Your task to perform on an android device: check the backup settings in the google photos Image 0: 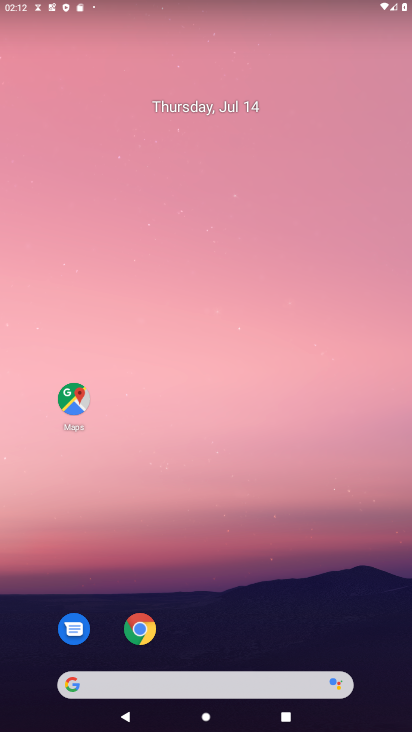
Step 0: drag from (234, 553) to (226, 33)
Your task to perform on an android device: check the backup settings in the google photos Image 1: 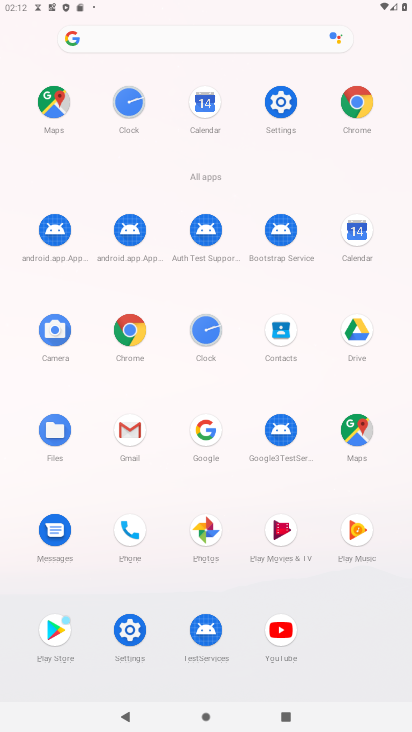
Step 1: click (213, 536)
Your task to perform on an android device: check the backup settings in the google photos Image 2: 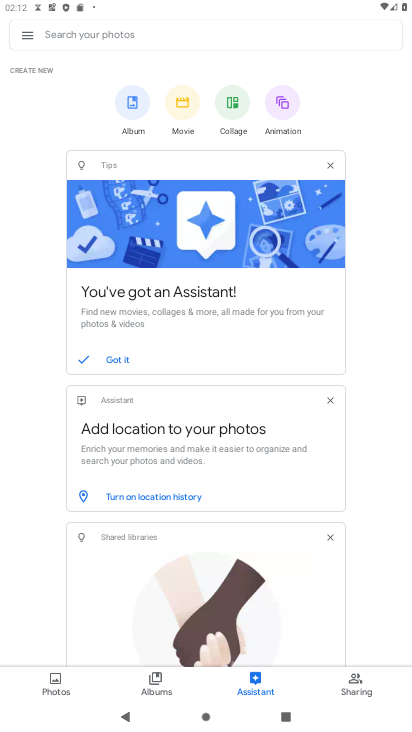
Step 2: click (57, 665)
Your task to perform on an android device: check the backup settings in the google photos Image 3: 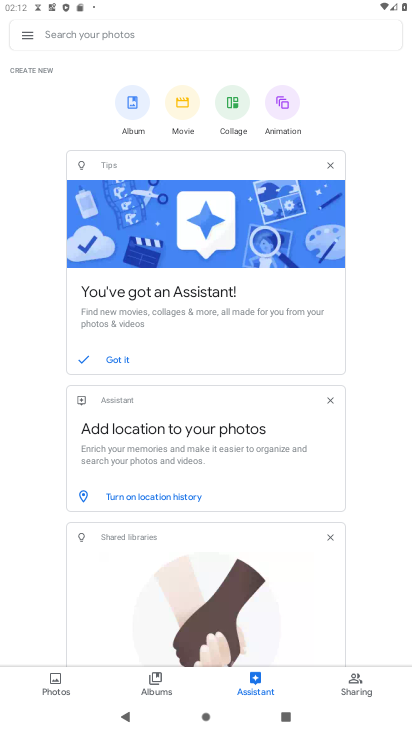
Step 3: click (54, 684)
Your task to perform on an android device: check the backup settings in the google photos Image 4: 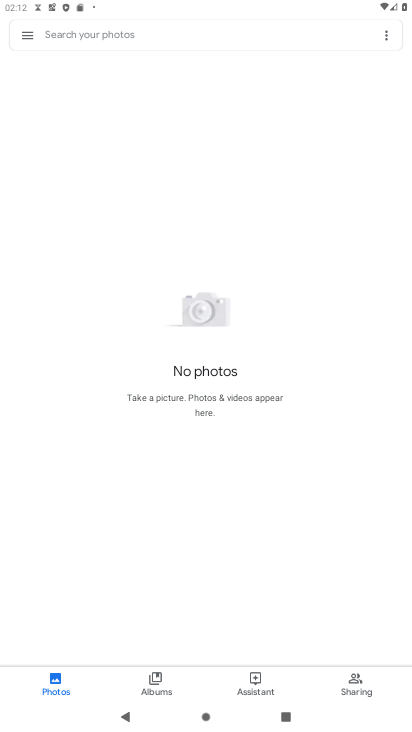
Step 4: click (32, 29)
Your task to perform on an android device: check the backup settings in the google photos Image 5: 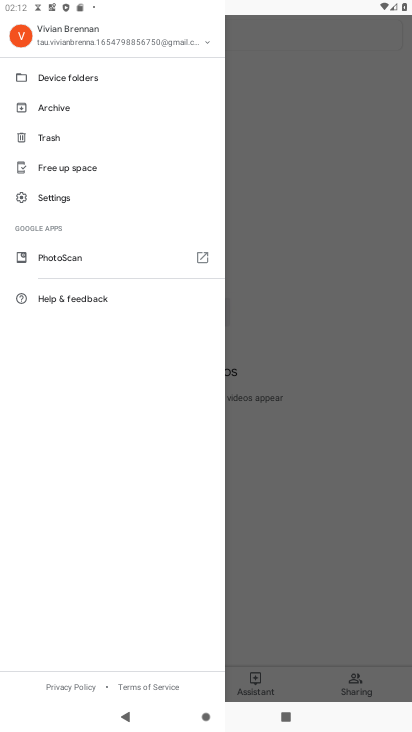
Step 5: click (56, 197)
Your task to perform on an android device: check the backup settings in the google photos Image 6: 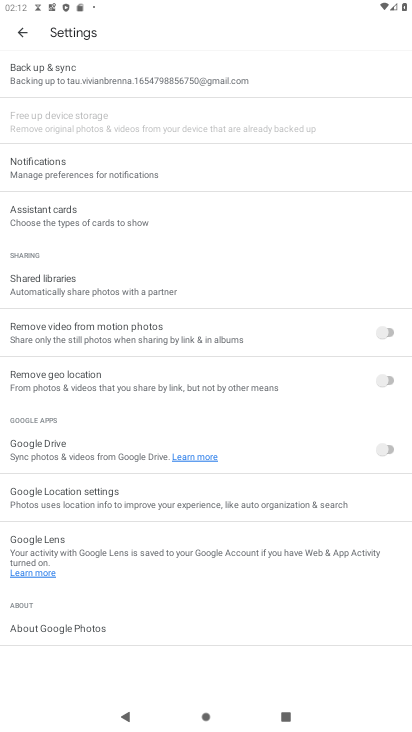
Step 6: click (102, 64)
Your task to perform on an android device: check the backup settings in the google photos Image 7: 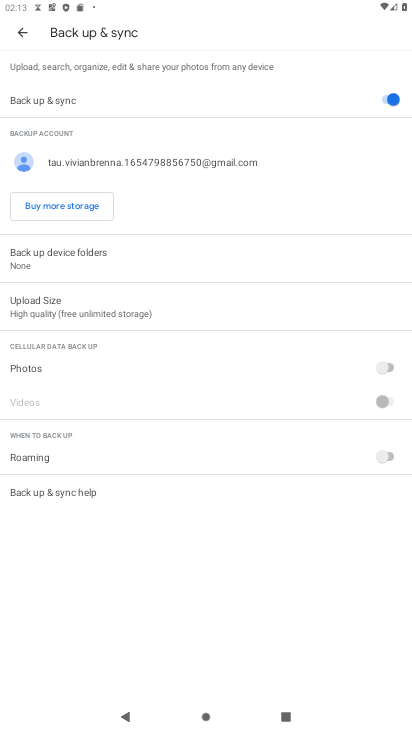
Step 7: task complete